Your task to perform on an android device: Show me productivity apps on the Play Store Image 0: 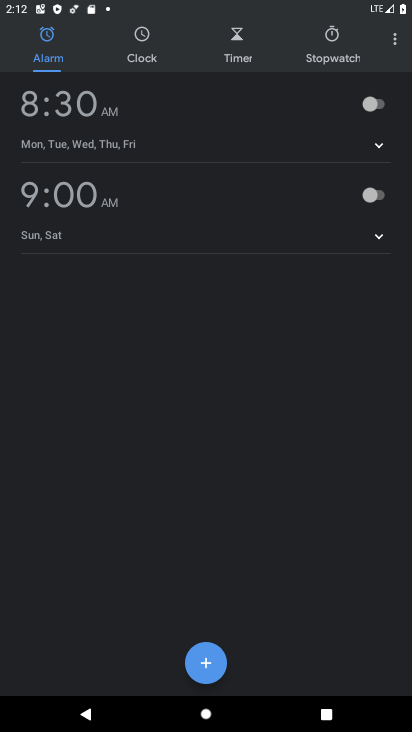
Step 0: press home button
Your task to perform on an android device: Show me productivity apps on the Play Store Image 1: 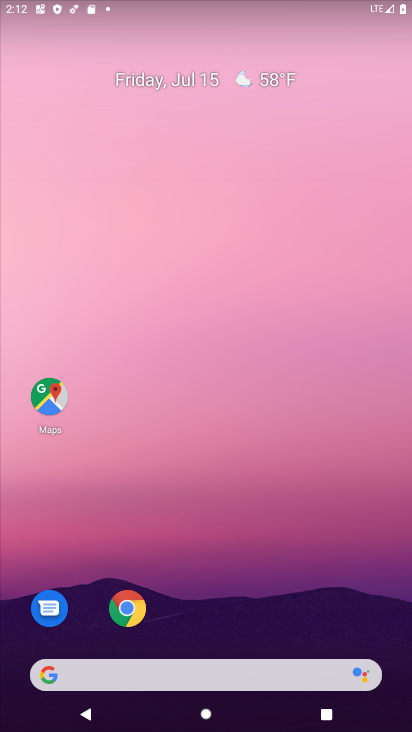
Step 1: drag from (330, 636) to (410, 707)
Your task to perform on an android device: Show me productivity apps on the Play Store Image 2: 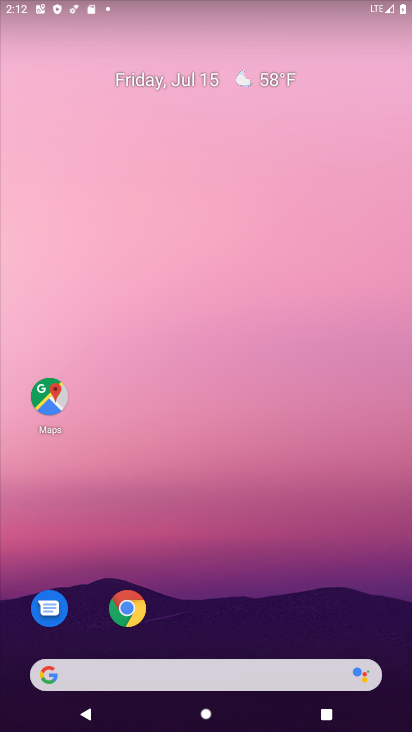
Step 2: drag from (197, 616) to (275, 124)
Your task to perform on an android device: Show me productivity apps on the Play Store Image 3: 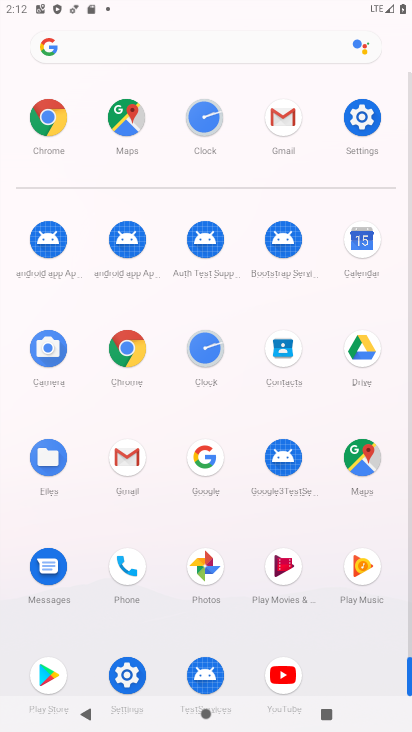
Step 3: click (53, 664)
Your task to perform on an android device: Show me productivity apps on the Play Store Image 4: 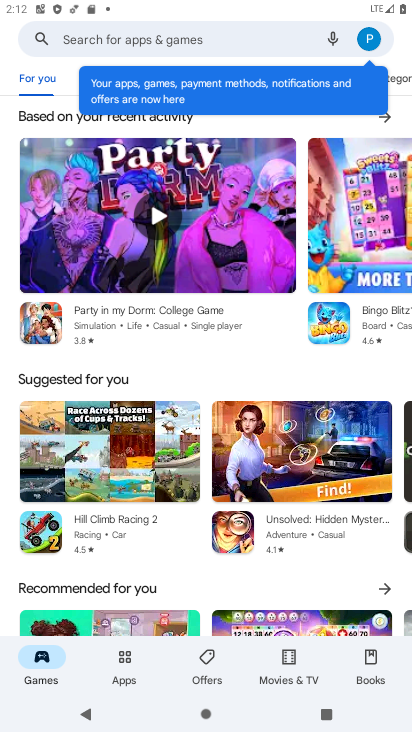
Step 4: click (197, 31)
Your task to perform on an android device: Show me productivity apps on the Play Store Image 5: 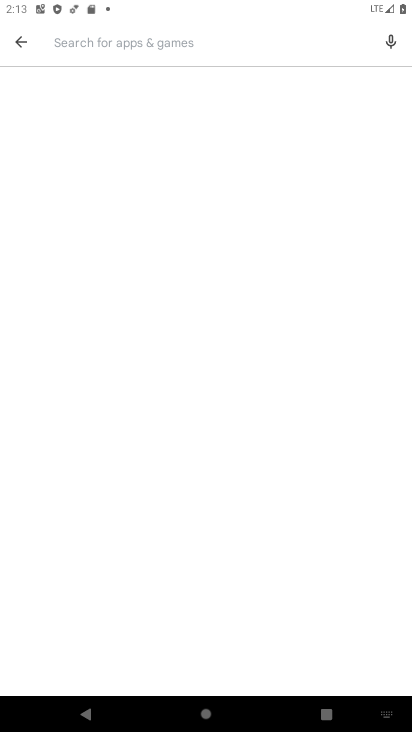
Step 5: type "productivity apps "
Your task to perform on an android device: Show me productivity apps on the Play Store Image 6: 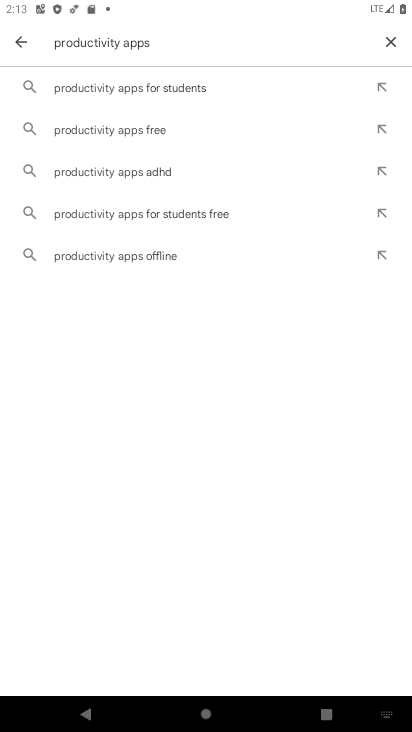
Step 6: click (141, 128)
Your task to perform on an android device: Show me productivity apps on the Play Store Image 7: 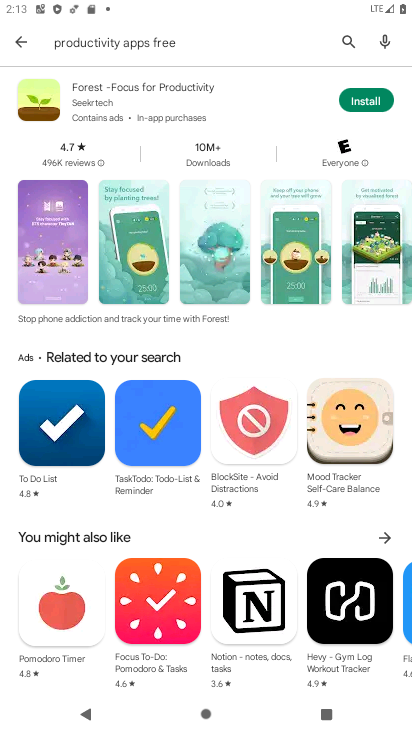
Step 7: task complete